Your task to perform on an android device: Go to eBay Image 0: 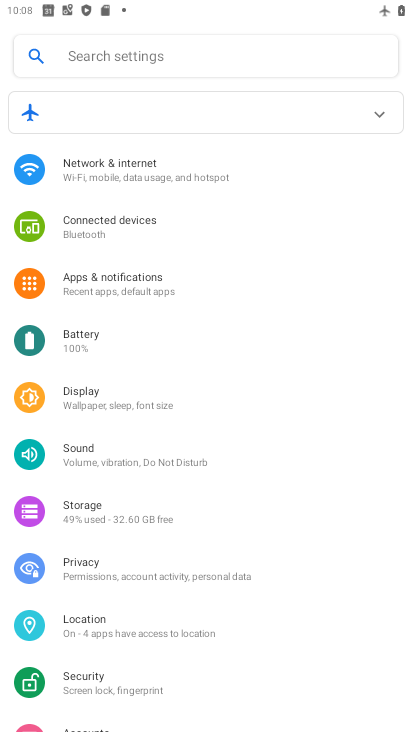
Step 0: press home button
Your task to perform on an android device: Go to eBay Image 1: 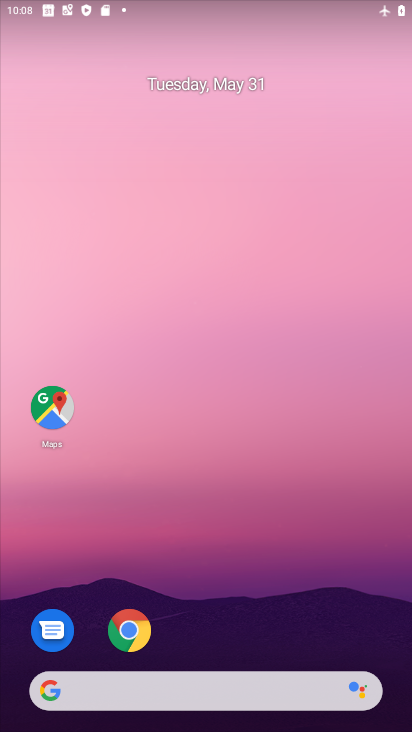
Step 1: click (121, 634)
Your task to perform on an android device: Go to eBay Image 2: 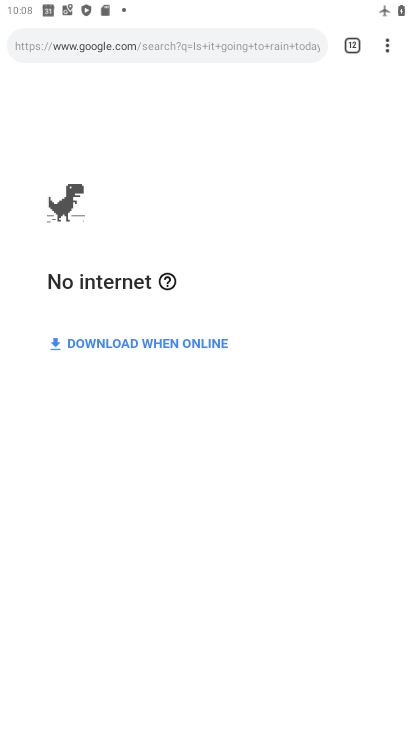
Step 2: click (380, 44)
Your task to perform on an android device: Go to eBay Image 3: 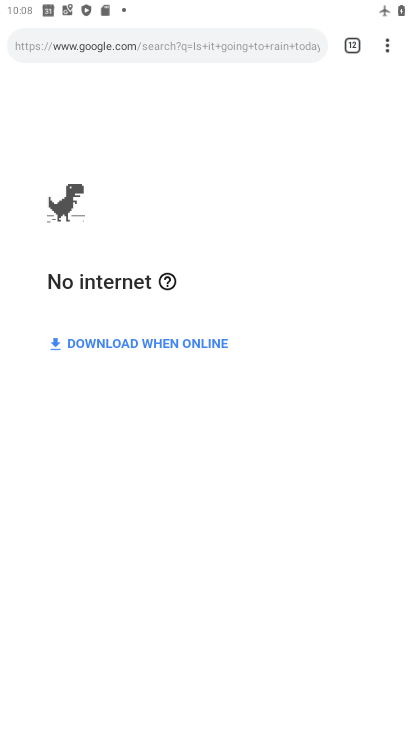
Step 3: click (383, 38)
Your task to perform on an android device: Go to eBay Image 4: 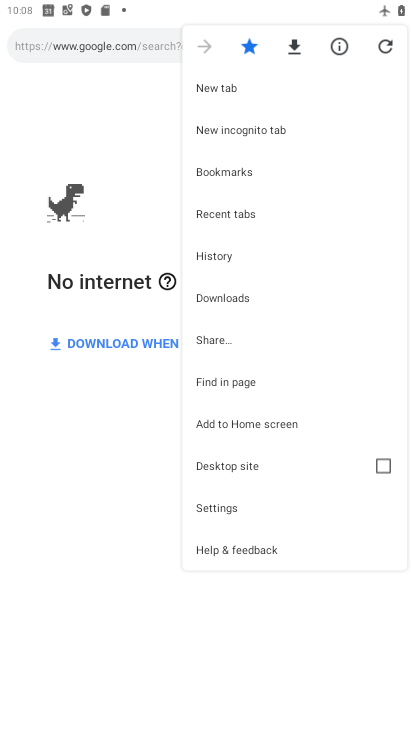
Step 4: click (236, 86)
Your task to perform on an android device: Go to eBay Image 5: 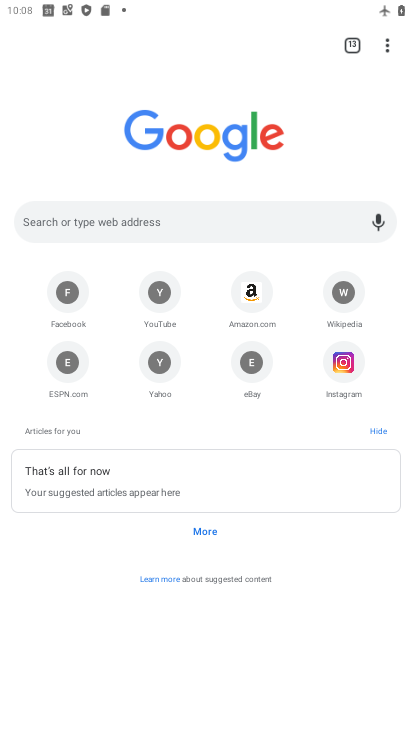
Step 5: click (206, 224)
Your task to perform on an android device: Go to eBay Image 6: 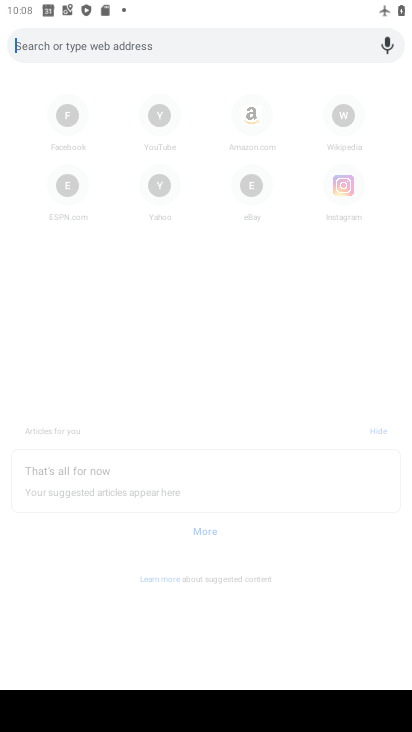
Step 6: type " eBay"
Your task to perform on an android device: Go to eBay Image 7: 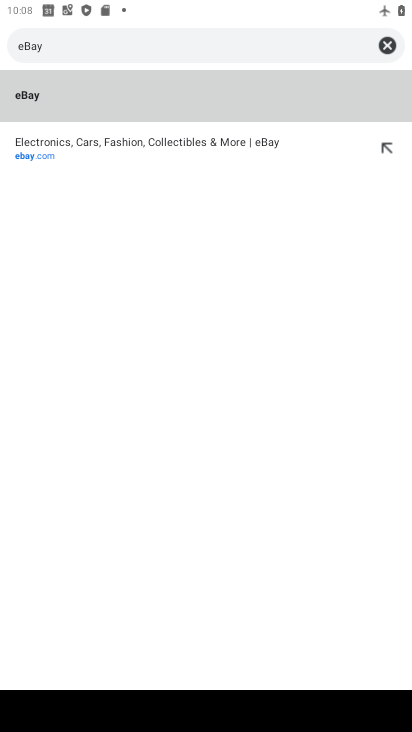
Step 7: click (261, 102)
Your task to perform on an android device: Go to eBay Image 8: 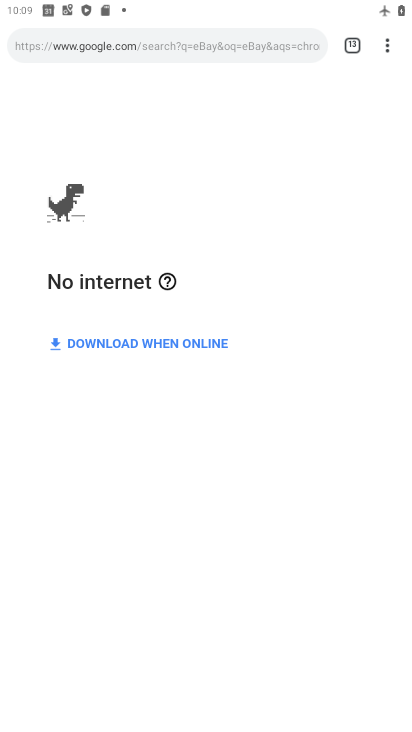
Step 8: task complete